Your task to perform on an android device: toggle show notifications on the lock screen Image 0: 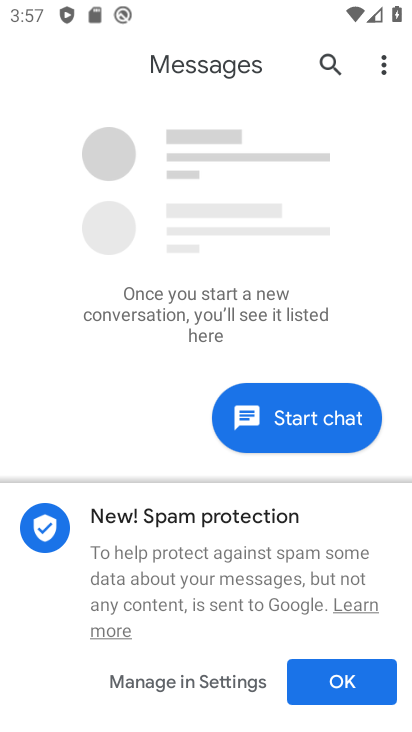
Step 0: press home button
Your task to perform on an android device: toggle show notifications on the lock screen Image 1: 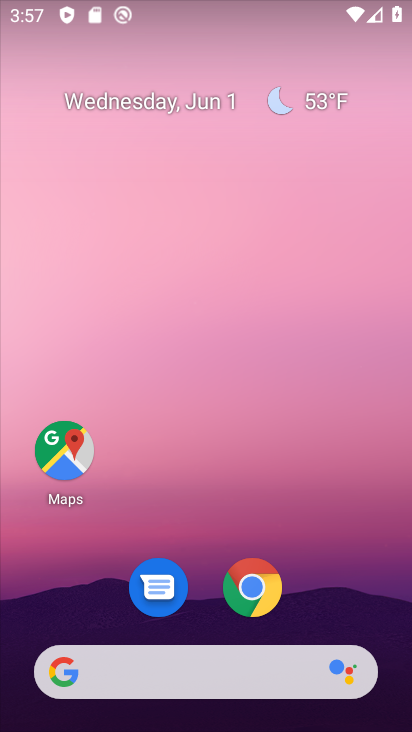
Step 1: drag from (317, 613) to (249, 154)
Your task to perform on an android device: toggle show notifications on the lock screen Image 2: 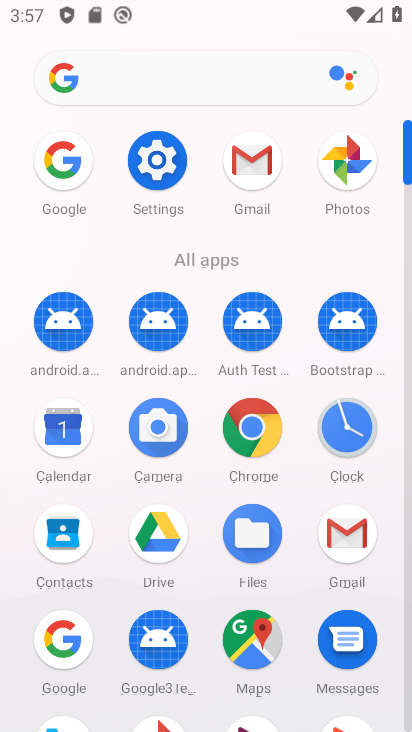
Step 2: click (156, 160)
Your task to perform on an android device: toggle show notifications on the lock screen Image 3: 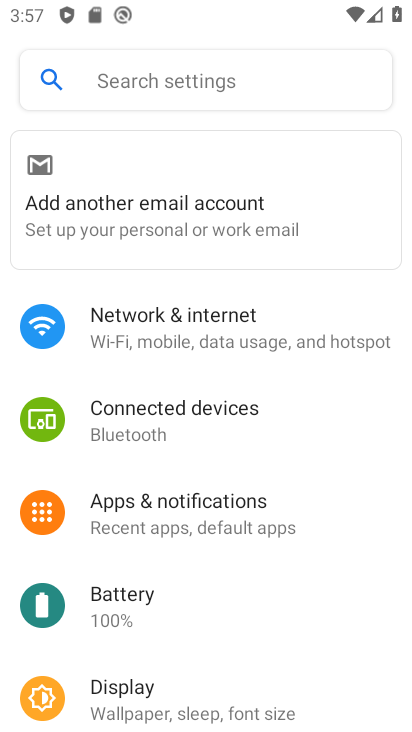
Step 3: drag from (145, 558) to (164, 474)
Your task to perform on an android device: toggle show notifications on the lock screen Image 4: 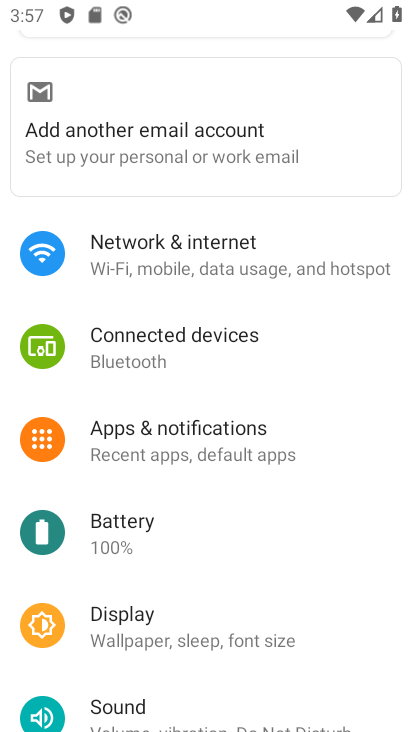
Step 4: click (221, 452)
Your task to perform on an android device: toggle show notifications on the lock screen Image 5: 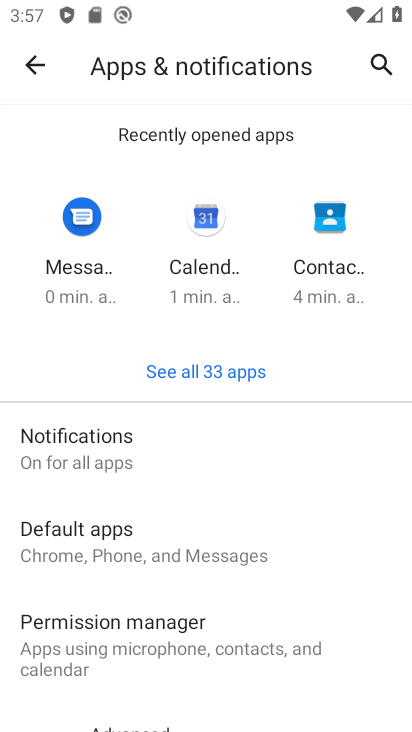
Step 5: click (117, 453)
Your task to perform on an android device: toggle show notifications on the lock screen Image 6: 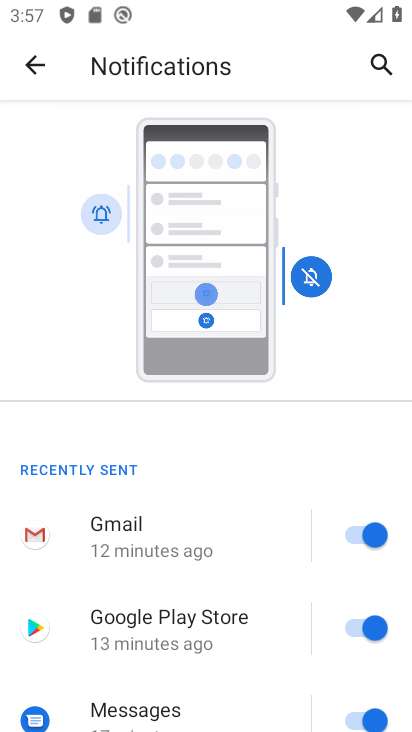
Step 6: drag from (220, 501) to (256, 379)
Your task to perform on an android device: toggle show notifications on the lock screen Image 7: 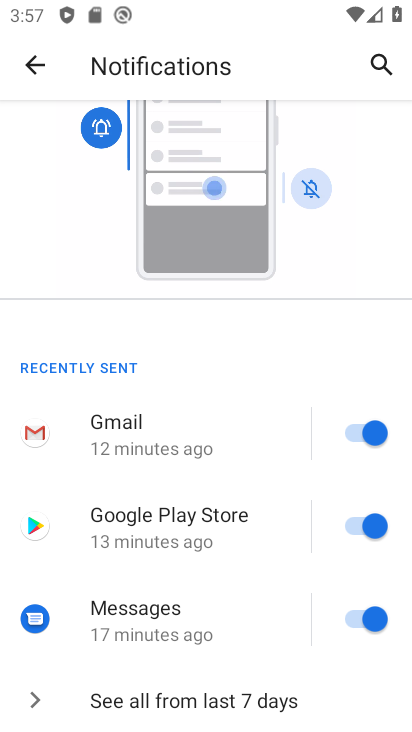
Step 7: drag from (171, 566) to (239, 402)
Your task to perform on an android device: toggle show notifications on the lock screen Image 8: 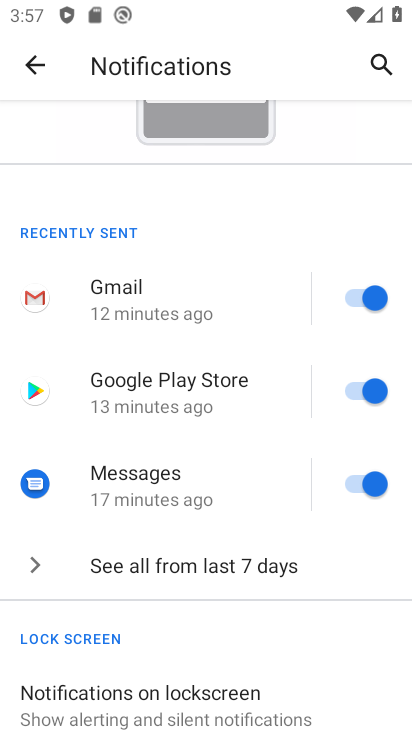
Step 8: drag from (155, 611) to (230, 473)
Your task to perform on an android device: toggle show notifications on the lock screen Image 9: 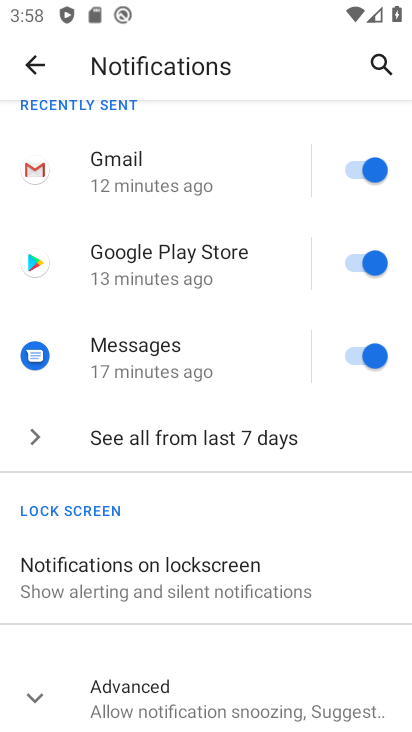
Step 9: click (187, 575)
Your task to perform on an android device: toggle show notifications on the lock screen Image 10: 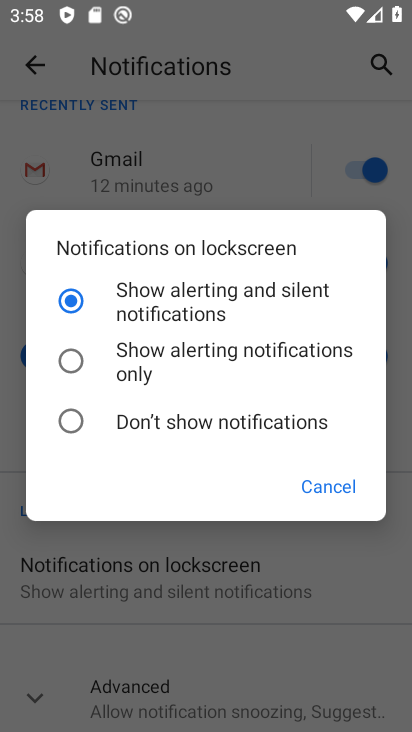
Step 10: click (73, 410)
Your task to perform on an android device: toggle show notifications on the lock screen Image 11: 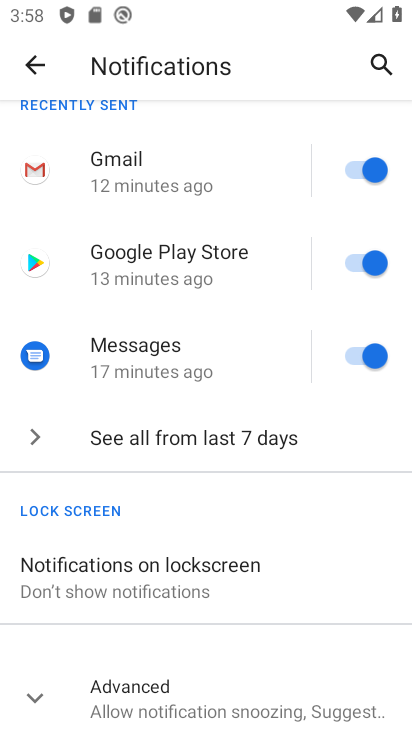
Step 11: task complete